Your task to perform on an android device: turn off location Image 0: 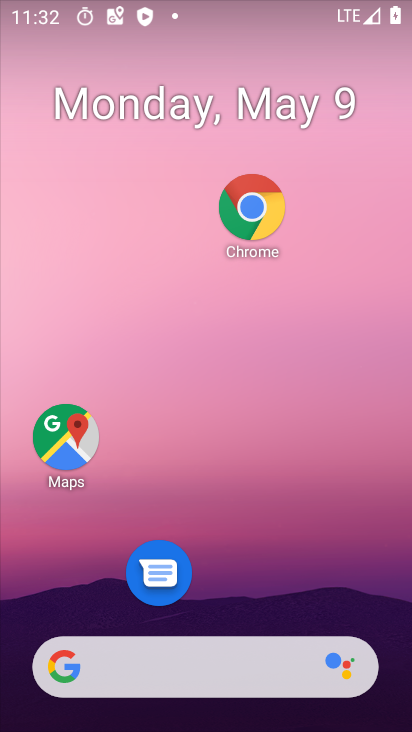
Step 0: drag from (230, 573) to (236, 125)
Your task to perform on an android device: turn off location Image 1: 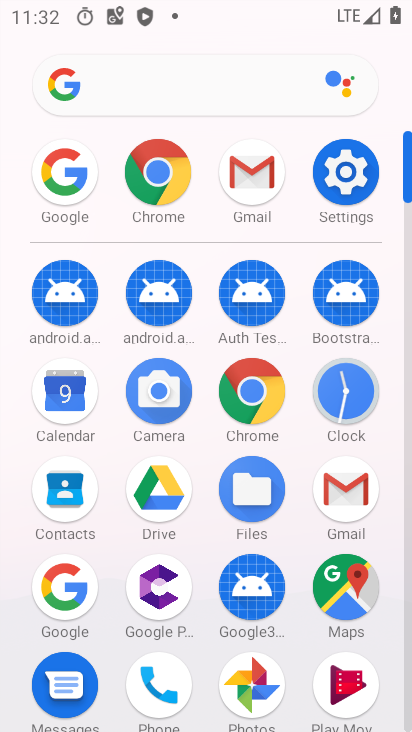
Step 1: click (362, 201)
Your task to perform on an android device: turn off location Image 2: 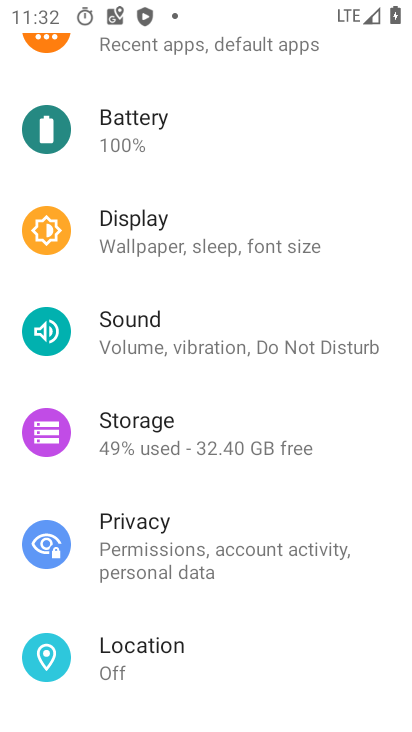
Step 2: drag from (314, 241) to (227, 470)
Your task to perform on an android device: turn off location Image 3: 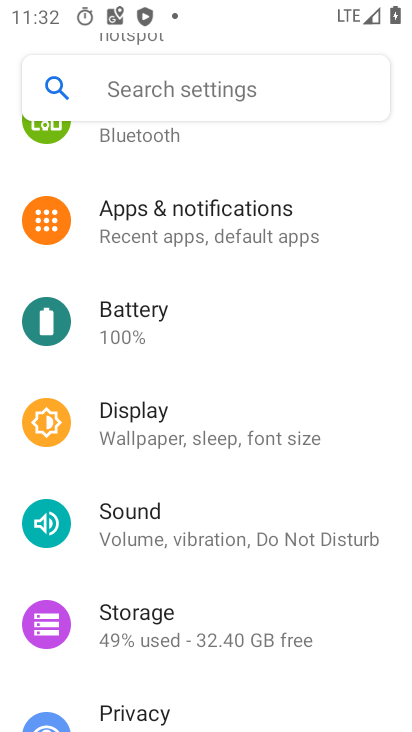
Step 3: drag from (226, 464) to (262, 217)
Your task to perform on an android device: turn off location Image 4: 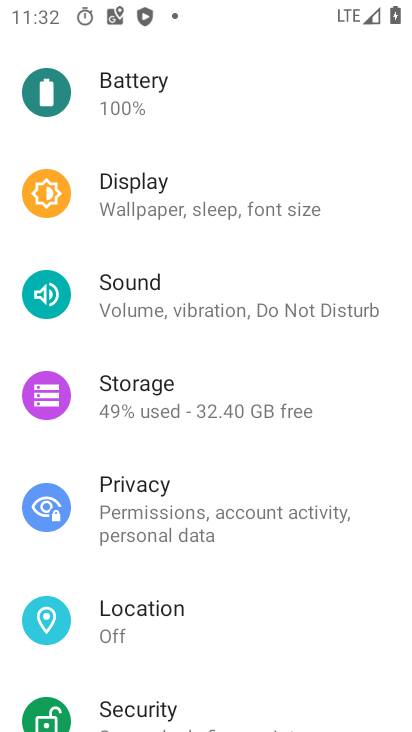
Step 4: click (173, 626)
Your task to perform on an android device: turn off location Image 5: 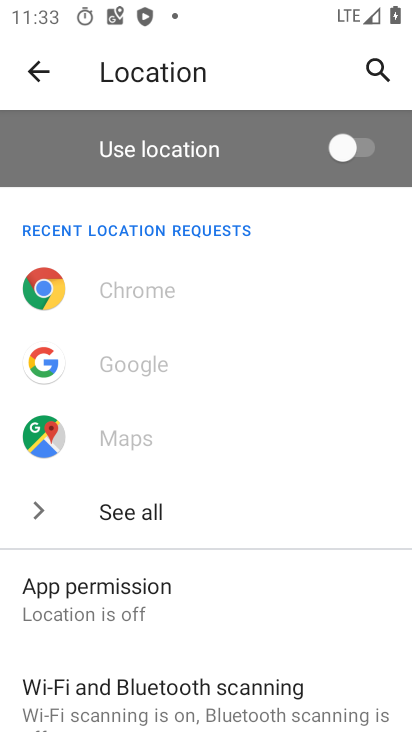
Step 5: task complete